Your task to perform on an android device: turn on airplane mode Image 0: 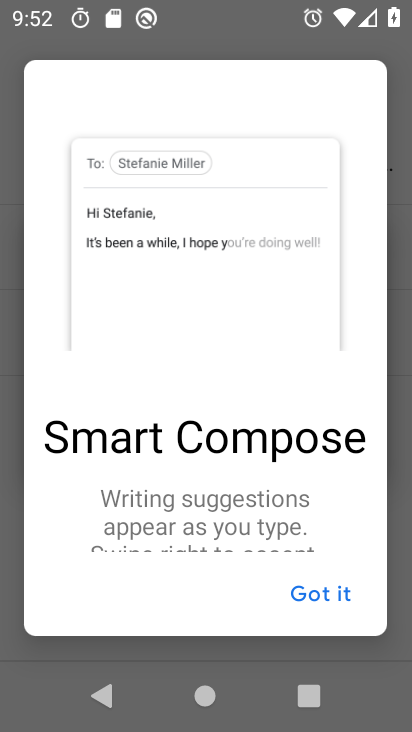
Step 0: press home button
Your task to perform on an android device: turn on airplane mode Image 1: 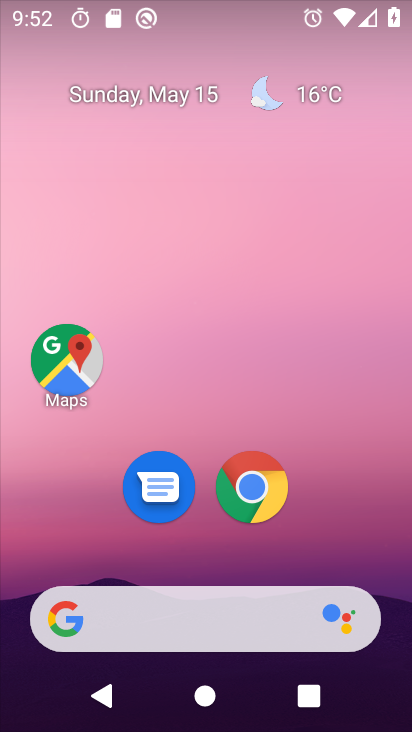
Step 1: drag from (351, 493) to (343, 158)
Your task to perform on an android device: turn on airplane mode Image 2: 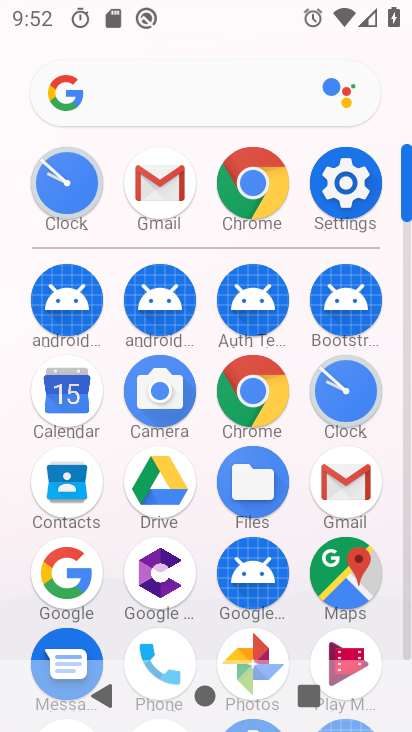
Step 2: drag from (282, 599) to (282, 351)
Your task to perform on an android device: turn on airplane mode Image 3: 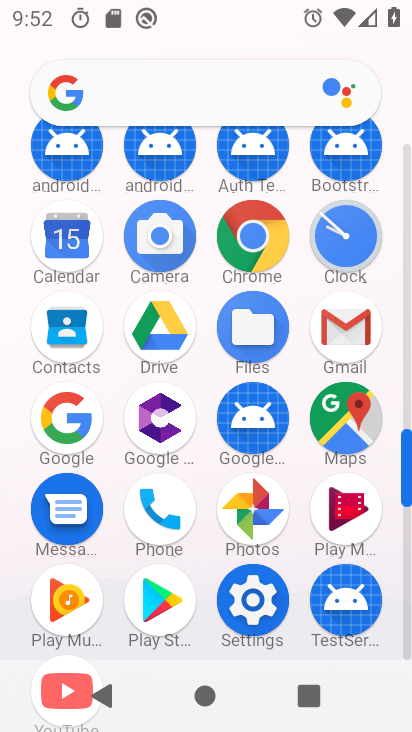
Step 3: click (257, 606)
Your task to perform on an android device: turn on airplane mode Image 4: 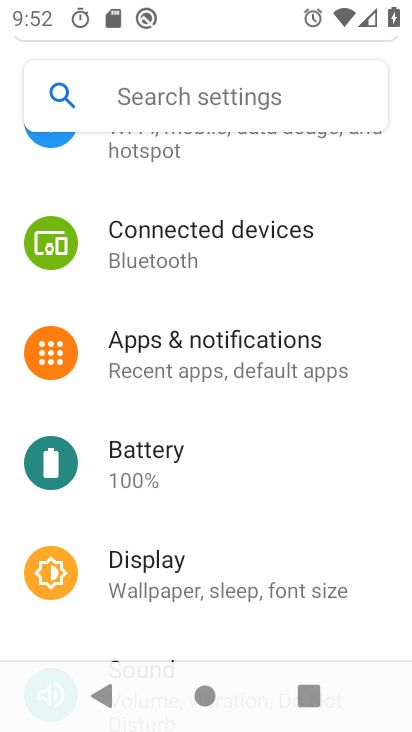
Step 4: drag from (206, 187) to (183, 610)
Your task to perform on an android device: turn on airplane mode Image 5: 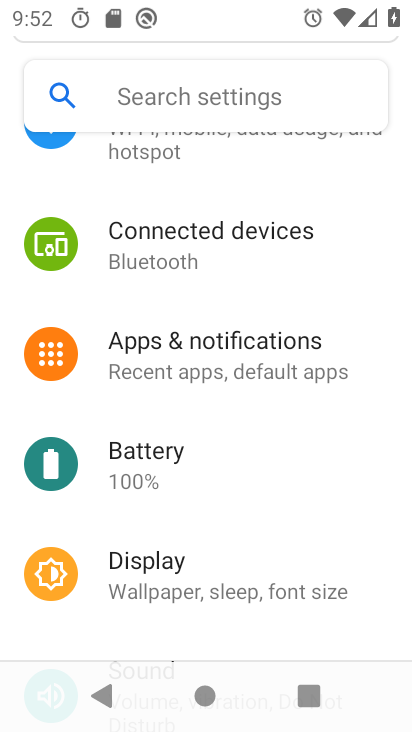
Step 5: drag from (233, 322) to (237, 613)
Your task to perform on an android device: turn on airplane mode Image 6: 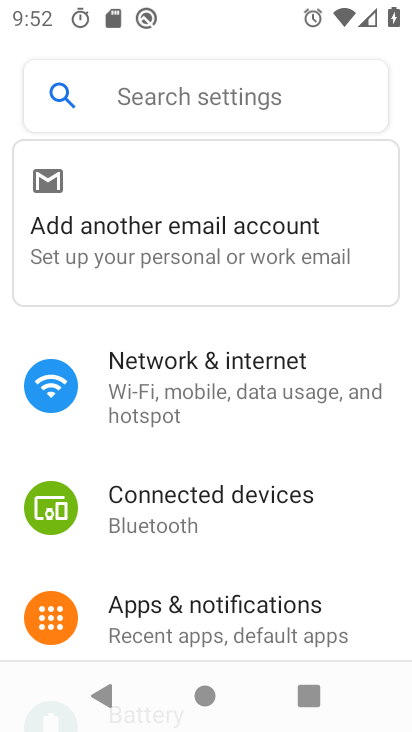
Step 6: click (187, 376)
Your task to perform on an android device: turn on airplane mode Image 7: 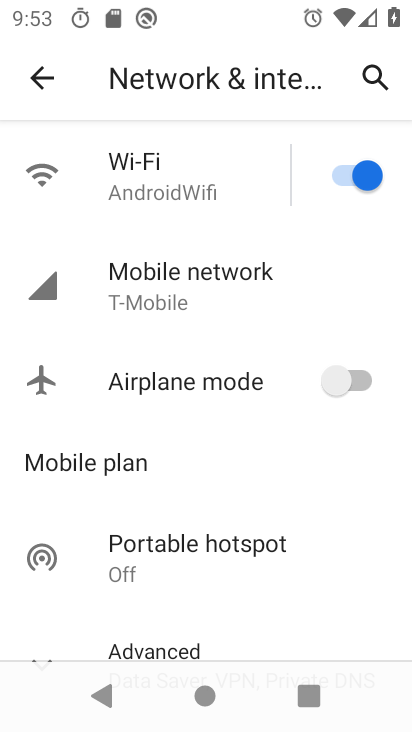
Step 7: click (360, 383)
Your task to perform on an android device: turn on airplane mode Image 8: 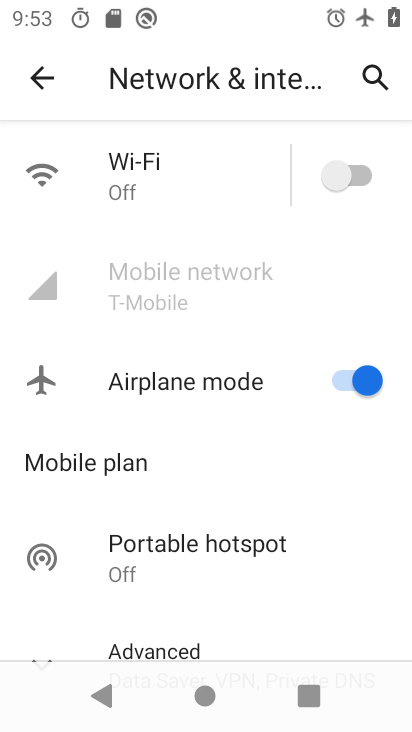
Step 8: task complete